Your task to perform on an android device: toggle translation in the chrome app Image 0: 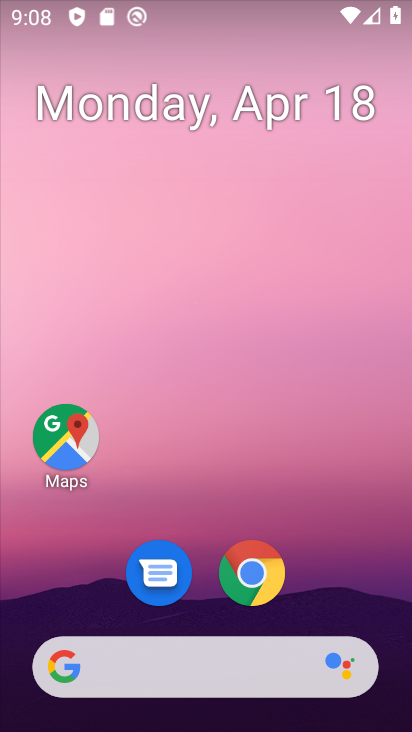
Step 0: click (252, 576)
Your task to perform on an android device: toggle translation in the chrome app Image 1: 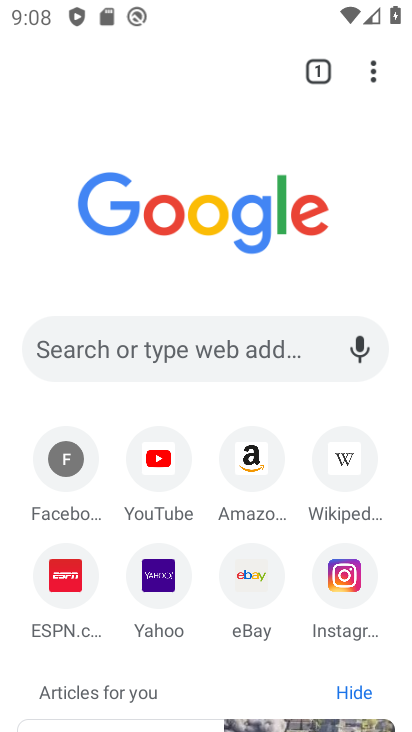
Step 1: click (371, 70)
Your task to perform on an android device: toggle translation in the chrome app Image 2: 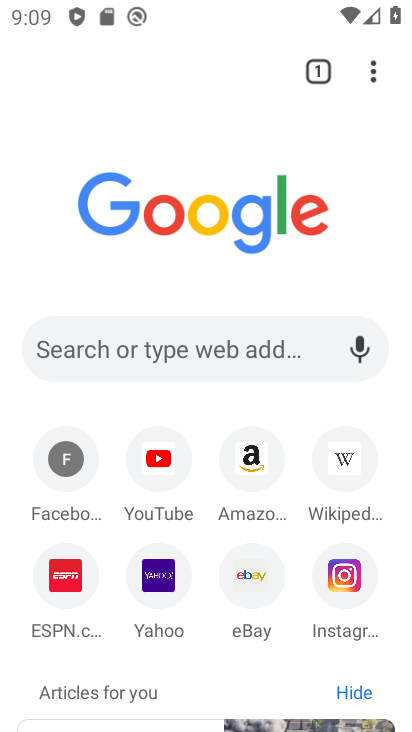
Step 2: click (372, 74)
Your task to perform on an android device: toggle translation in the chrome app Image 3: 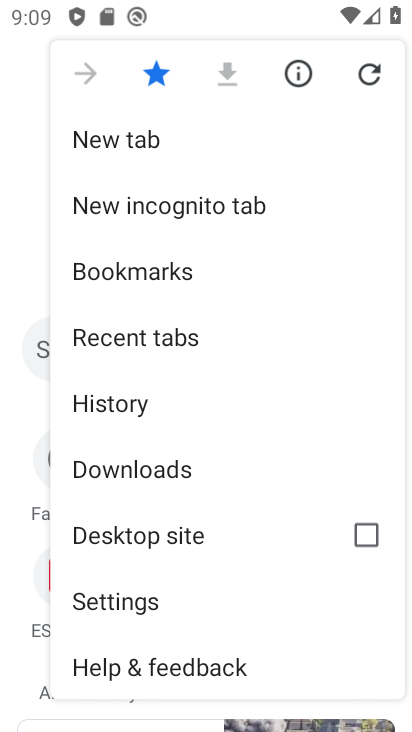
Step 3: click (122, 604)
Your task to perform on an android device: toggle translation in the chrome app Image 4: 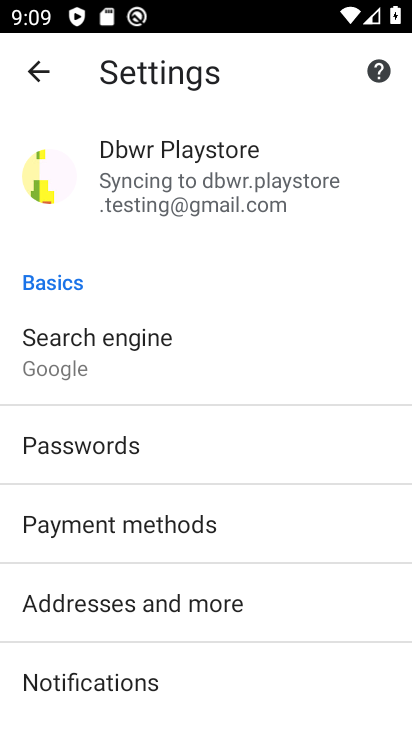
Step 4: drag from (298, 659) to (277, 267)
Your task to perform on an android device: toggle translation in the chrome app Image 5: 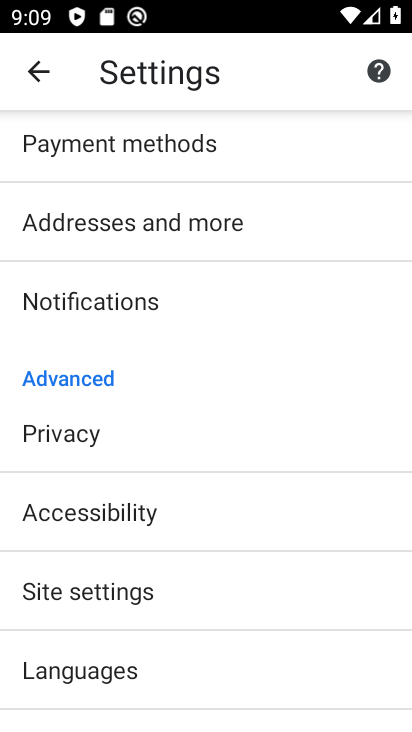
Step 5: drag from (239, 594) to (241, 287)
Your task to perform on an android device: toggle translation in the chrome app Image 6: 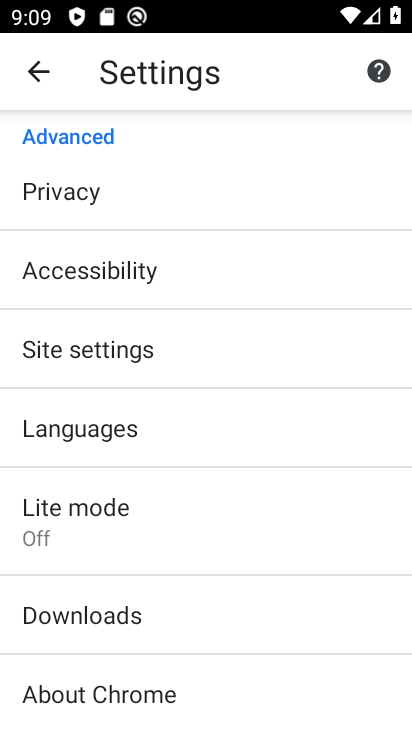
Step 6: click (71, 433)
Your task to perform on an android device: toggle translation in the chrome app Image 7: 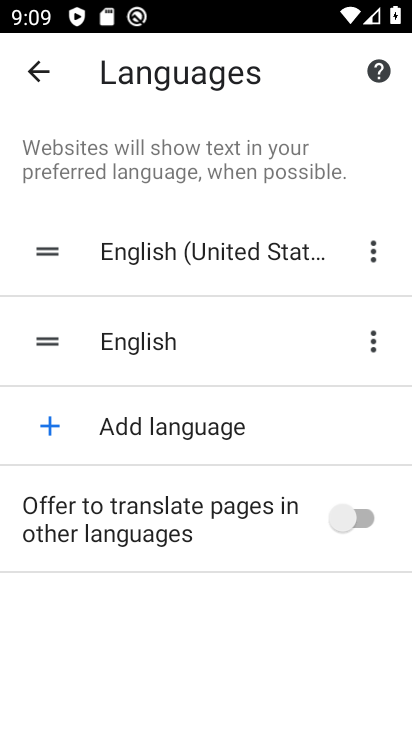
Step 7: click (364, 519)
Your task to perform on an android device: toggle translation in the chrome app Image 8: 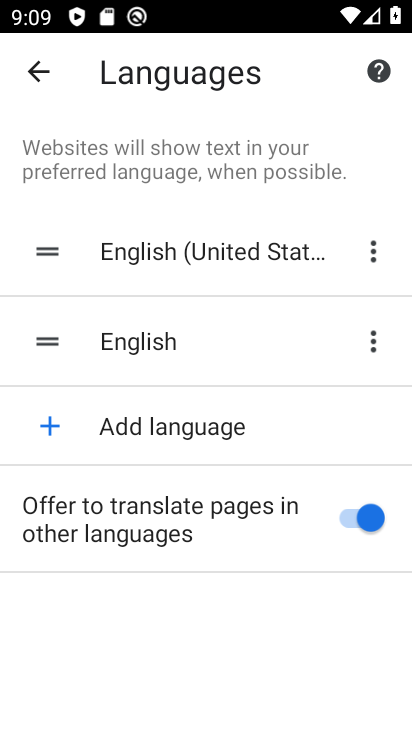
Step 8: task complete